Your task to perform on an android device: What is the news today? Image 0: 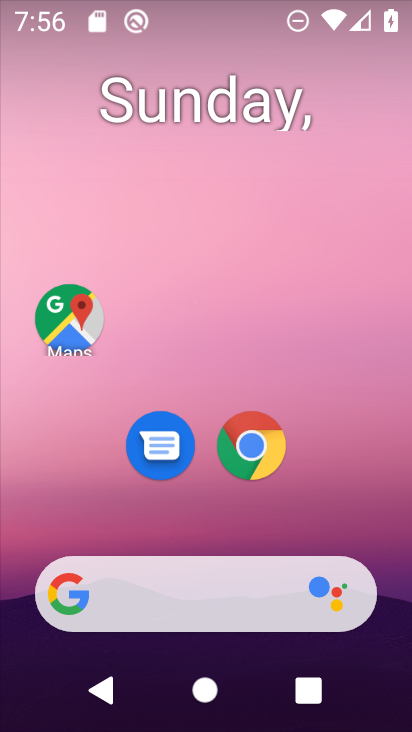
Step 0: drag from (263, 382) to (265, 222)
Your task to perform on an android device: What is the news today? Image 1: 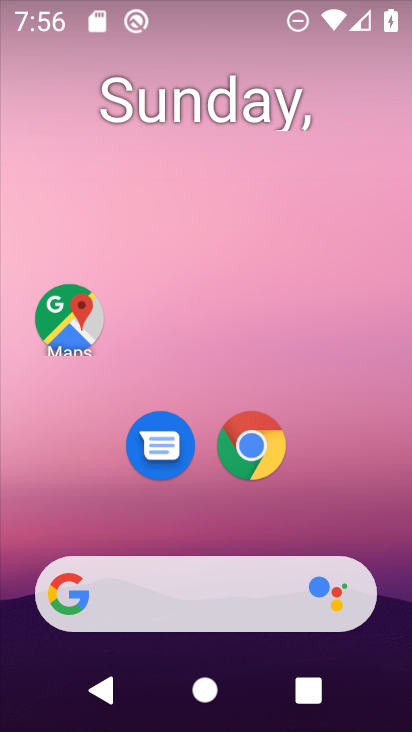
Step 1: drag from (228, 475) to (255, 63)
Your task to perform on an android device: What is the news today? Image 2: 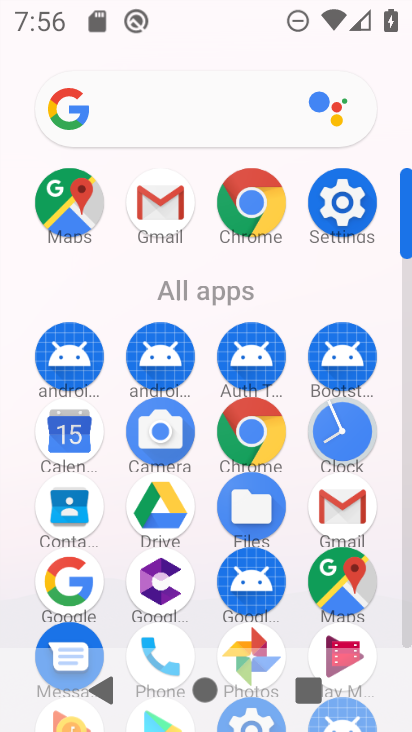
Step 2: drag from (166, 394) to (159, 248)
Your task to perform on an android device: What is the news today? Image 3: 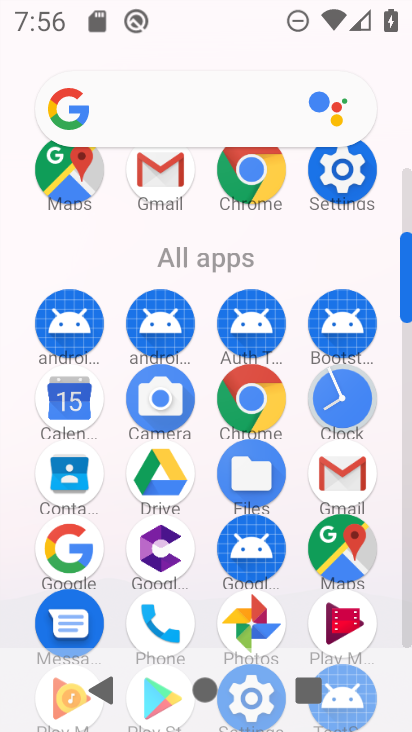
Step 3: drag from (147, 541) to (169, 317)
Your task to perform on an android device: What is the news today? Image 4: 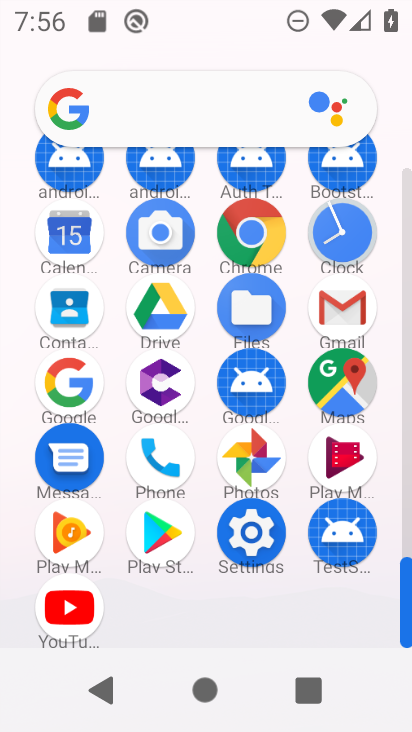
Step 4: click (76, 385)
Your task to perform on an android device: What is the news today? Image 5: 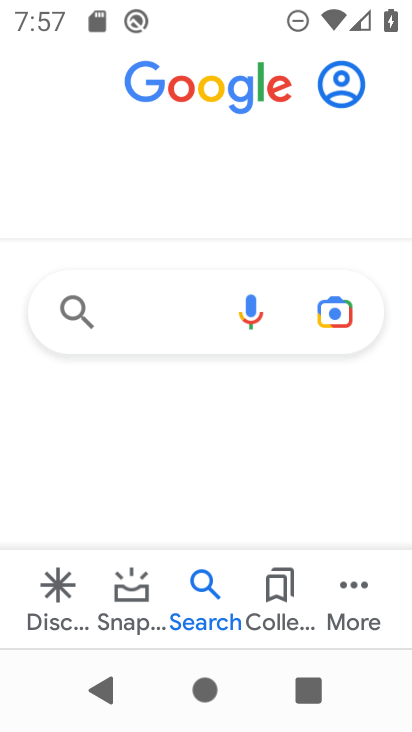
Step 5: click (171, 312)
Your task to perform on an android device: What is the news today? Image 6: 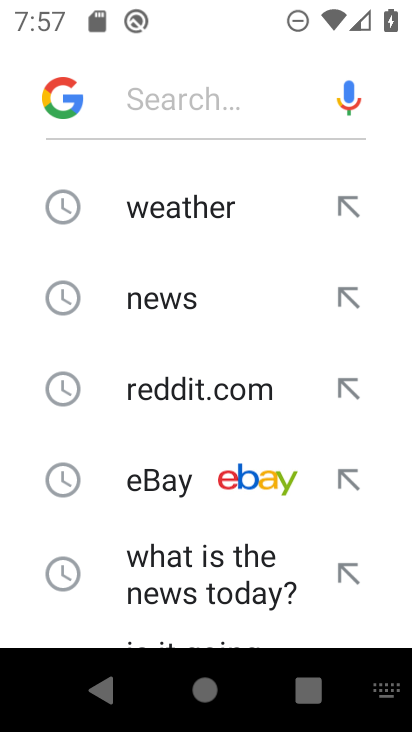
Step 6: click (224, 310)
Your task to perform on an android device: What is the news today? Image 7: 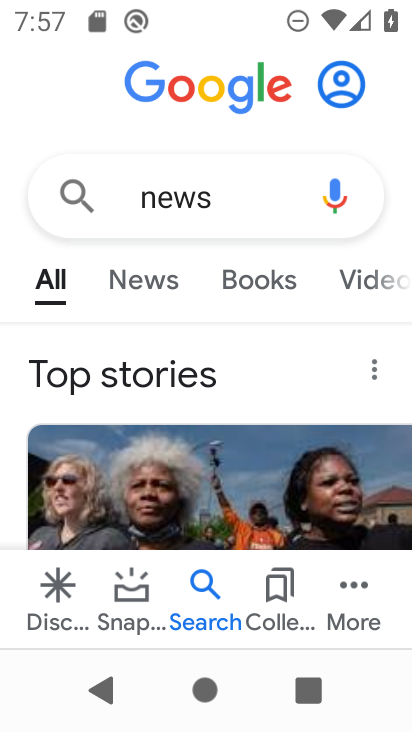
Step 7: click (148, 282)
Your task to perform on an android device: What is the news today? Image 8: 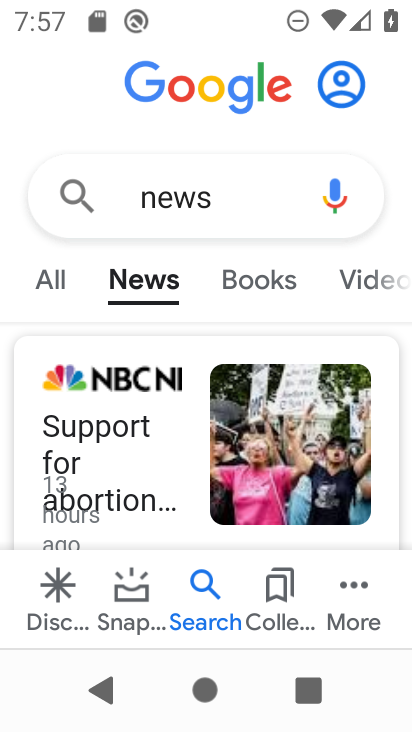
Step 8: task complete